Your task to perform on an android device: Search for Italian restaurants on Maps Image 0: 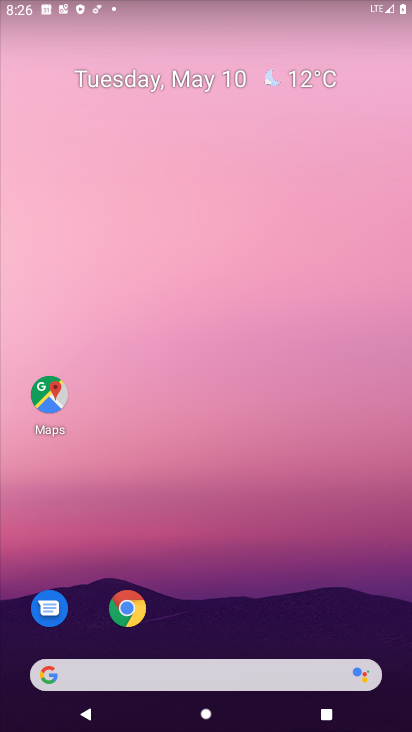
Step 0: click (52, 392)
Your task to perform on an android device: Search for Italian restaurants on Maps Image 1: 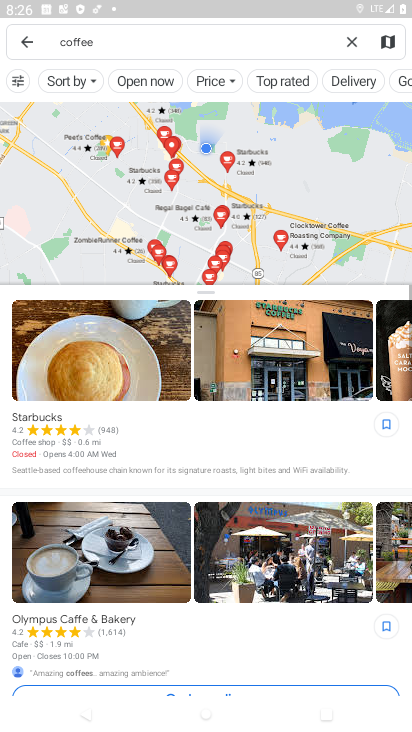
Step 1: click (348, 40)
Your task to perform on an android device: Search for Italian restaurants on Maps Image 2: 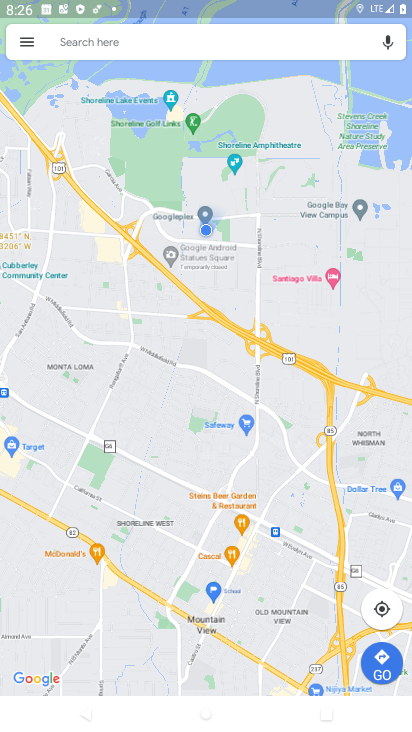
Step 2: click (114, 33)
Your task to perform on an android device: Search for Italian restaurants on Maps Image 3: 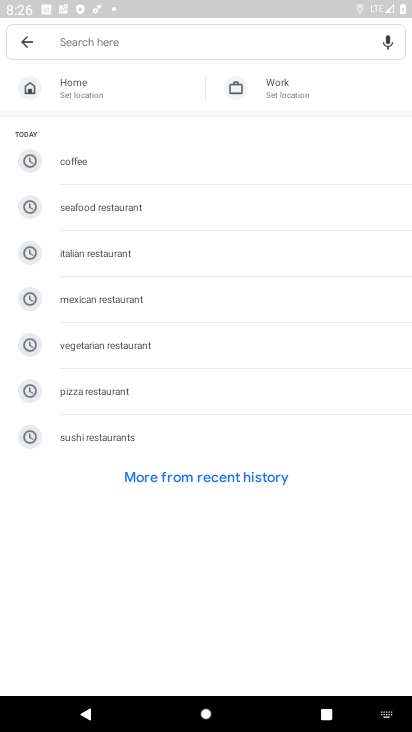
Step 3: click (70, 252)
Your task to perform on an android device: Search for Italian restaurants on Maps Image 4: 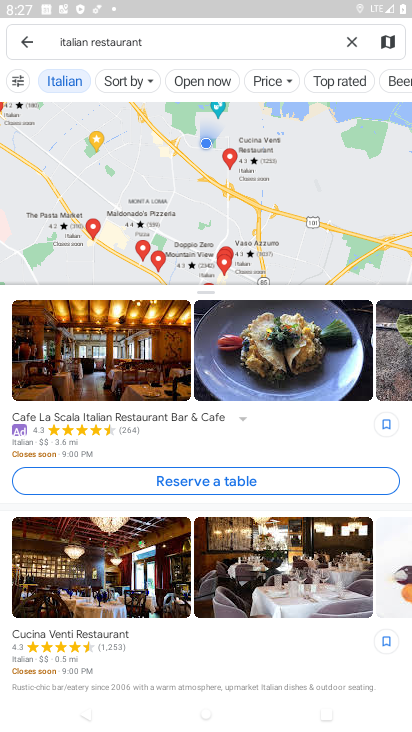
Step 4: task complete